Your task to perform on an android device: Open the map Image 0: 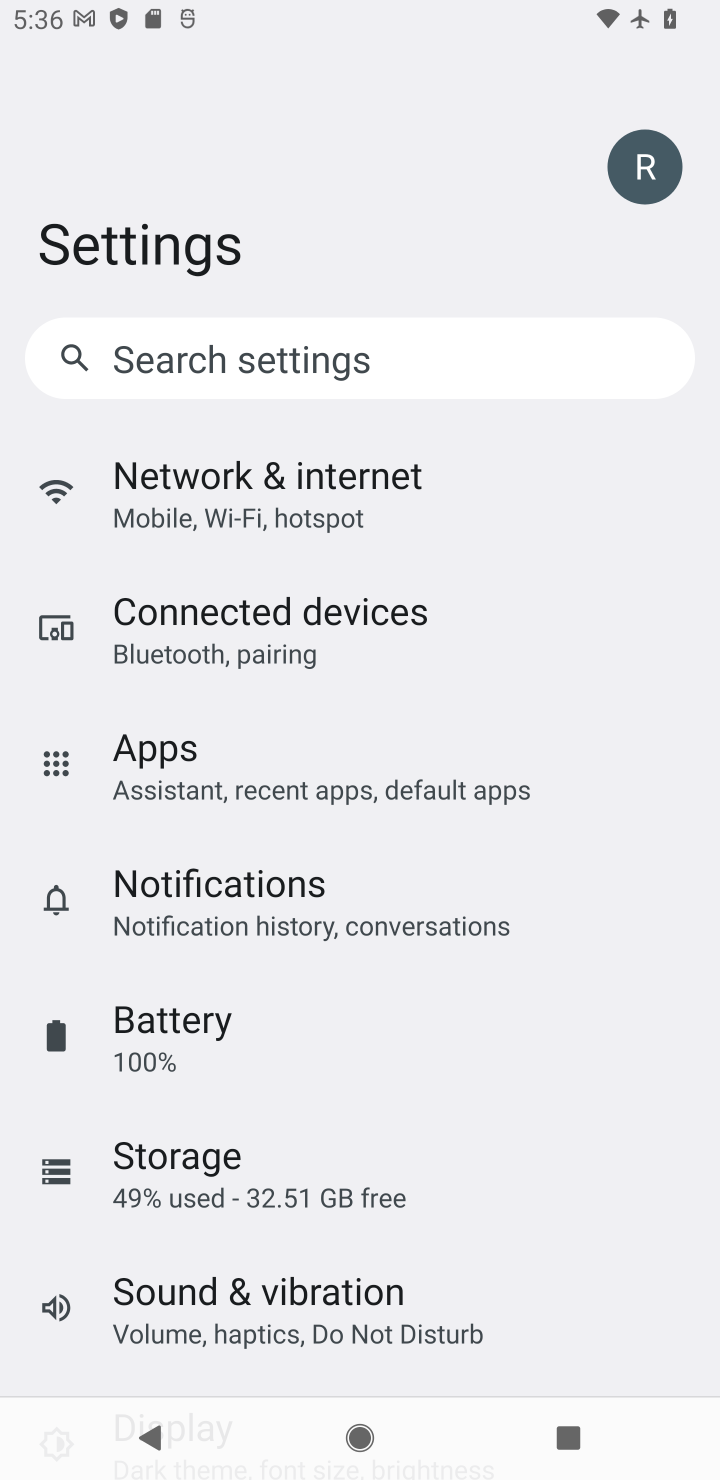
Step 0: press home button
Your task to perform on an android device: Open the map Image 1: 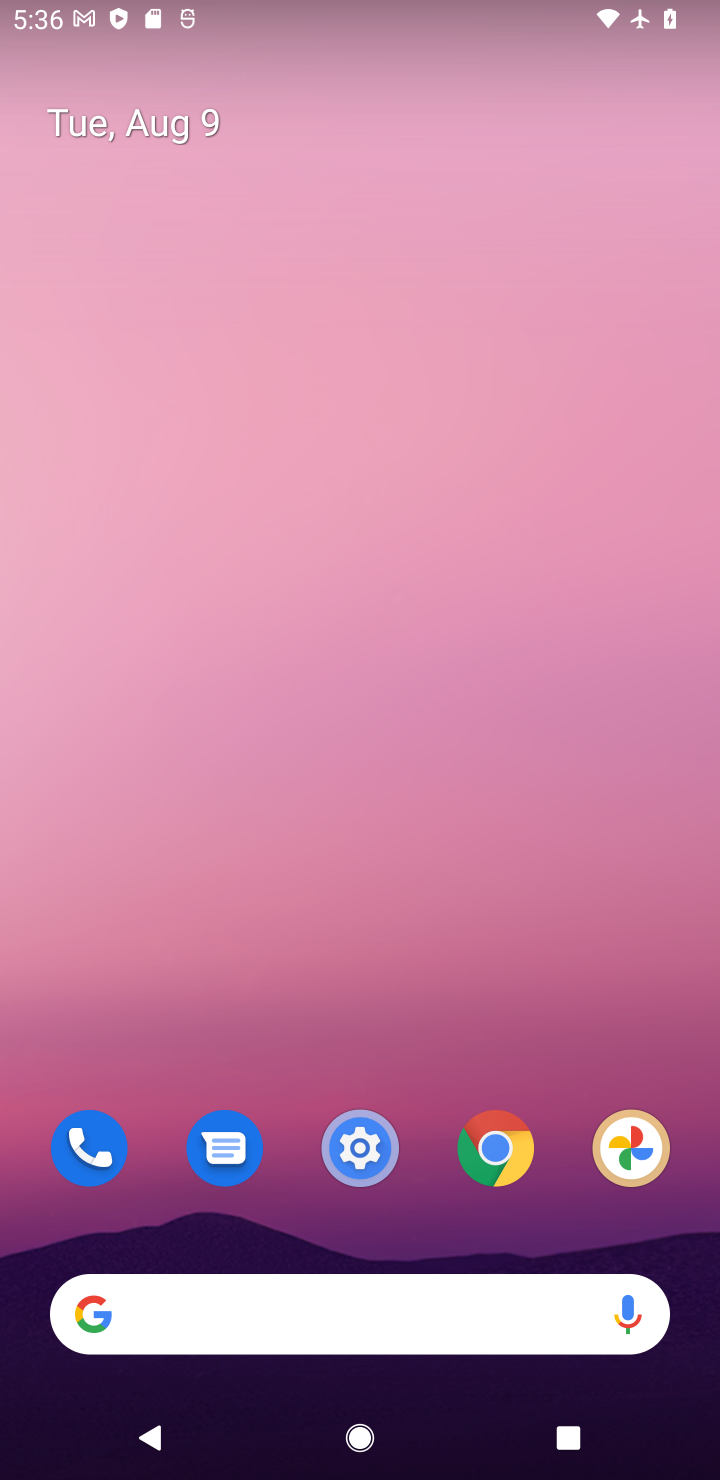
Step 1: drag from (315, 1133) to (415, 13)
Your task to perform on an android device: Open the map Image 2: 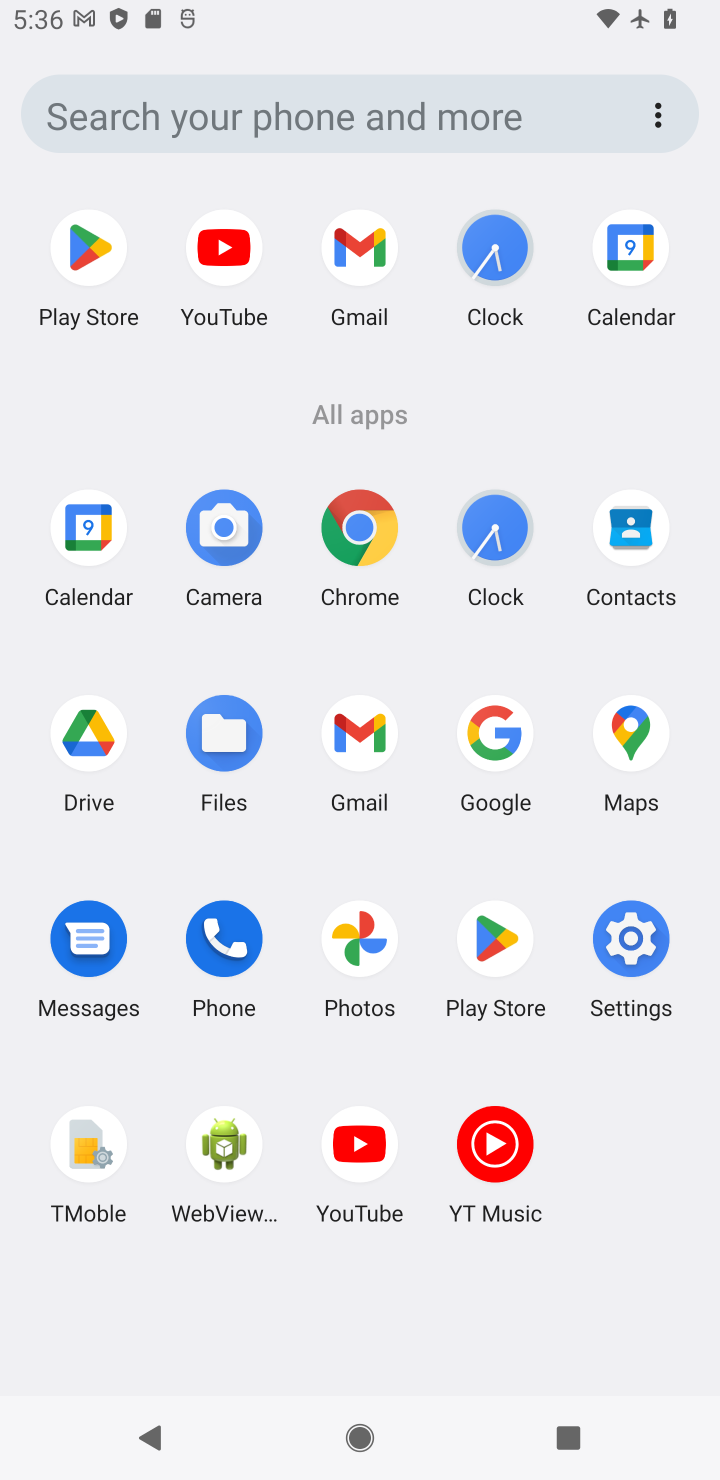
Step 2: click (633, 754)
Your task to perform on an android device: Open the map Image 3: 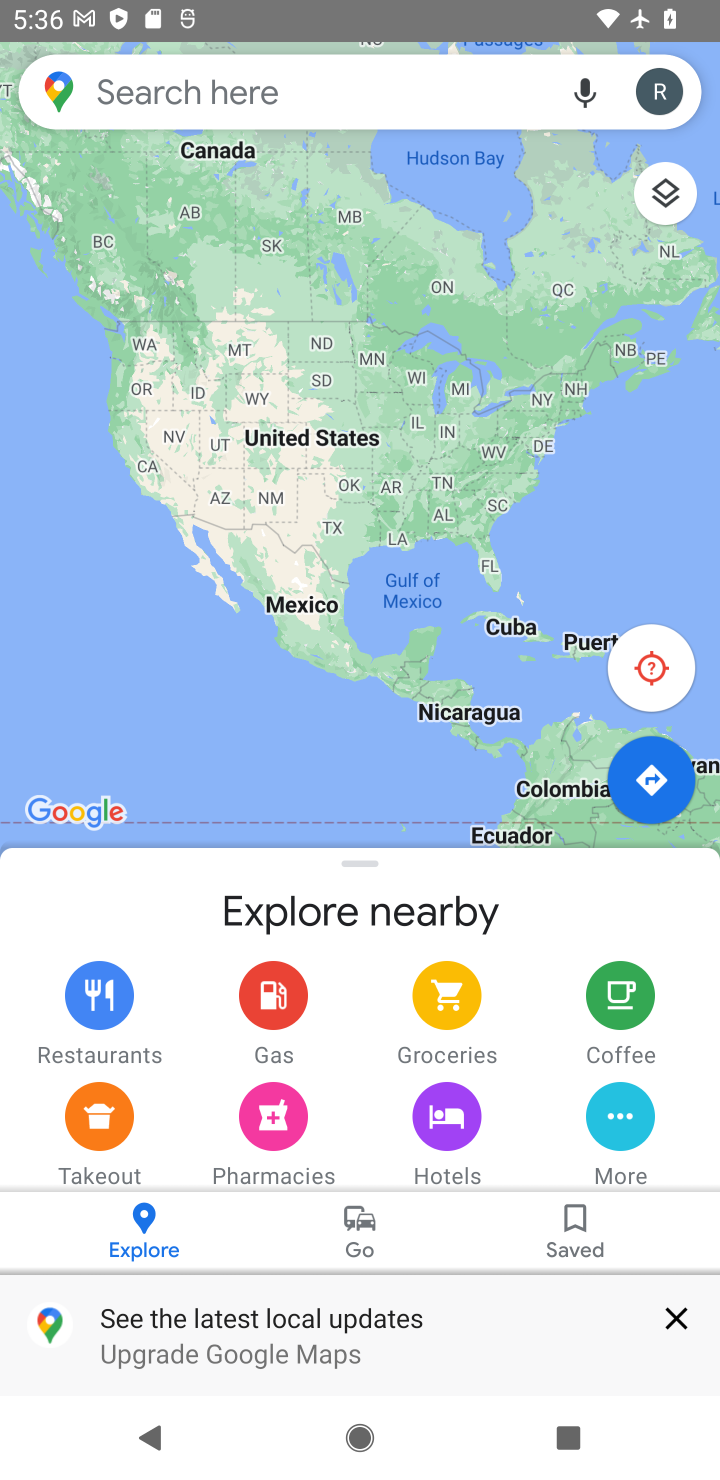
Step 3: task complete